Your task to perform on an android device: turn on the 24-hour format for clock Image 0: 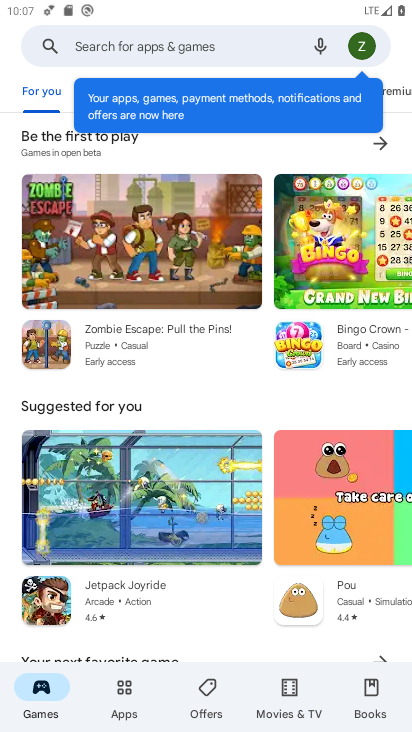
Step 0: press home button
Your task to perform on an android device: turn on the 24-hour format for clock Image 1: 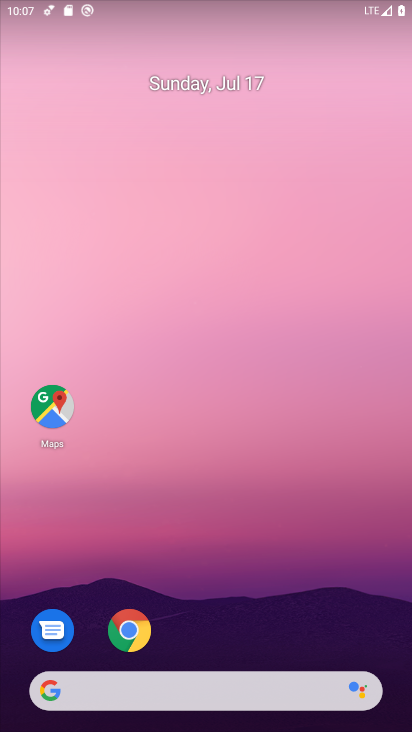
Step 1: drag from (200, 551) to (182, 169)
Your task to perform on an android device: turn on the 24-hour format for clock Image 2: 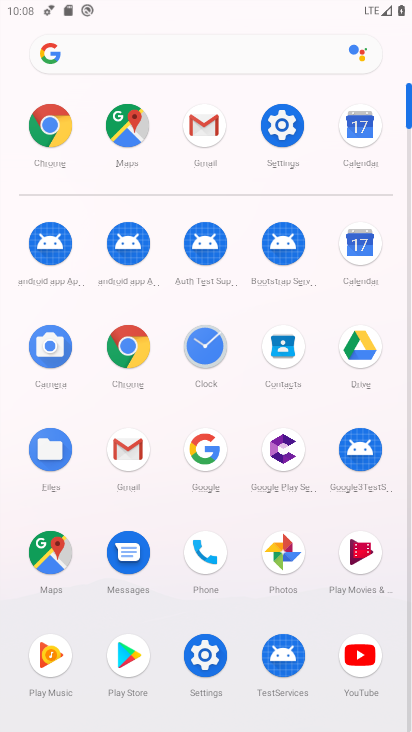
Step 2: click (197, 660)
Your task to perform on an android device: turn on the 24-hour format for clock Image 3: 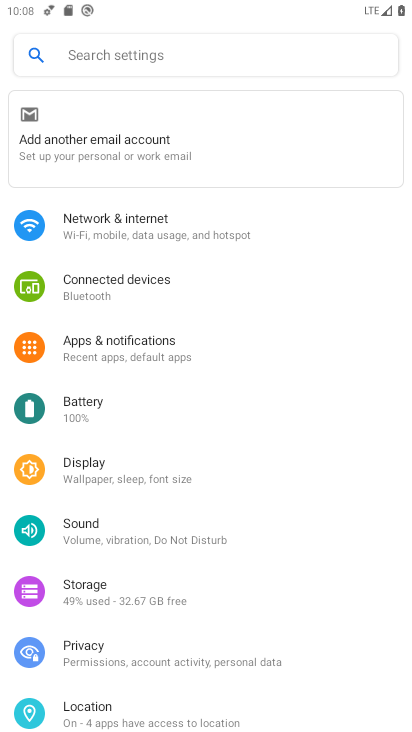
Step 3: drag from (125, 657) to (142, 190)
Your task to perform on an android device: turn on the 24-hour format for clock Image 4: 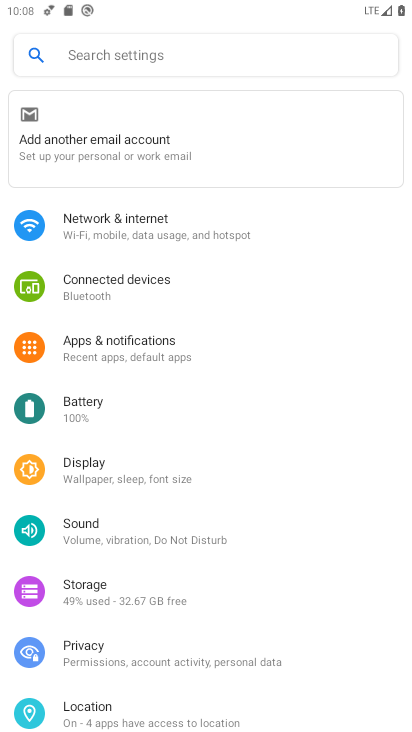
Step 4: drag from (83, 688) to (133, 174)
Your task to perform on an android device: turn on the 24-hour format for clock Image 5: 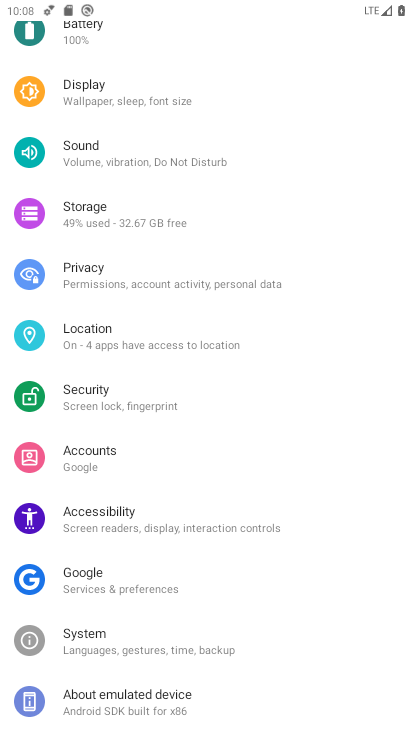
Step 5: click (116, 646)
Your task to perform on an android device: turn on the 24-hour format for clock Image 6: 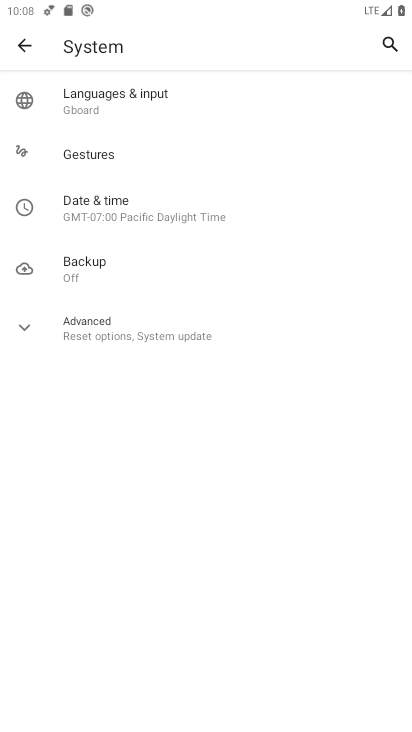
Step 6: click (123, 217)
Your task to perform on an android device: turn on the 24-hour format for clock Image 7: 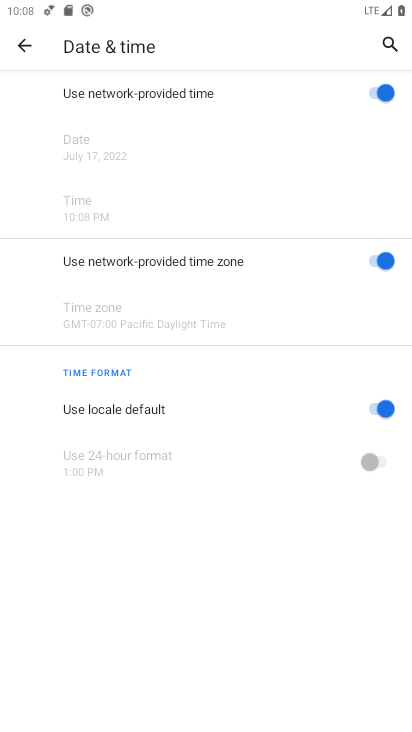
Step 7: click (343, 408)
Your task to perform on an android device: turn on the 24-hour format for clock Image 8: 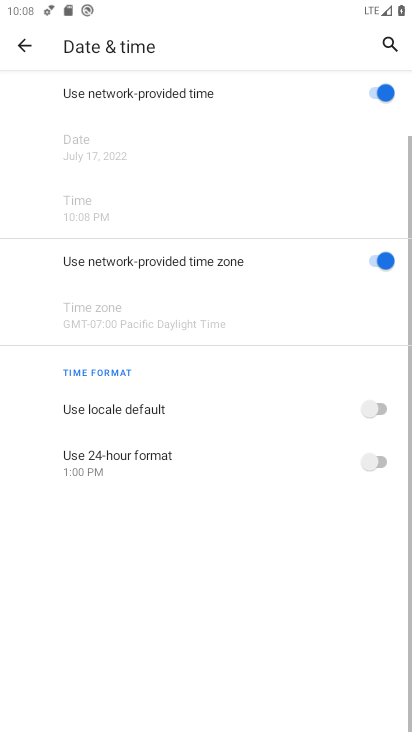
Step 8: click (391, 464)
Your task to perform on an android device: turn on the 24-hour format for clock Image 9: 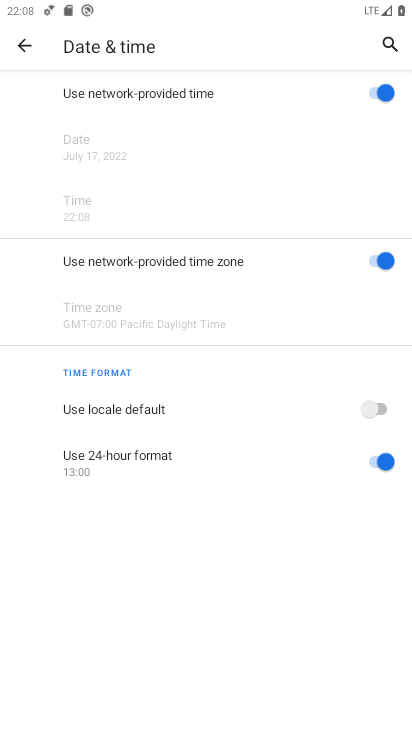
Step 9: task complete